Your task to perform on an android device: turn pop-ups on in chrome Image 0: 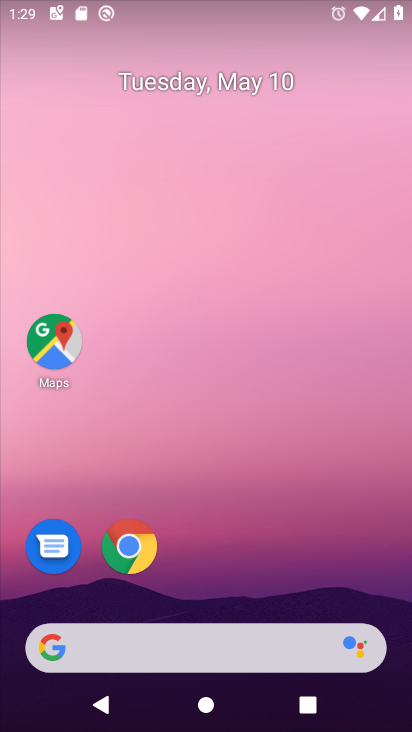
Step 0: click (136, 552)
Your task to perform on an android device: turn pop-ups on in chrome Image 1: 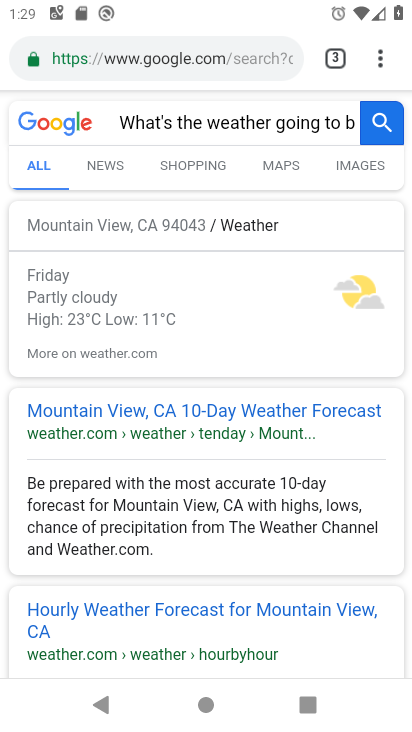
Step 1: task complete